Your task to perform on an android device: toggle translation in the chrome app Image 0: 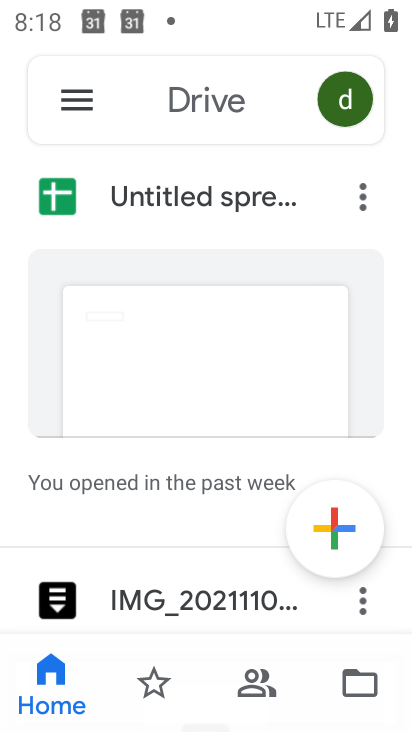
Step 0: press back button
Your task to perform on an android device: toggle translation in the chrome app Image 1: 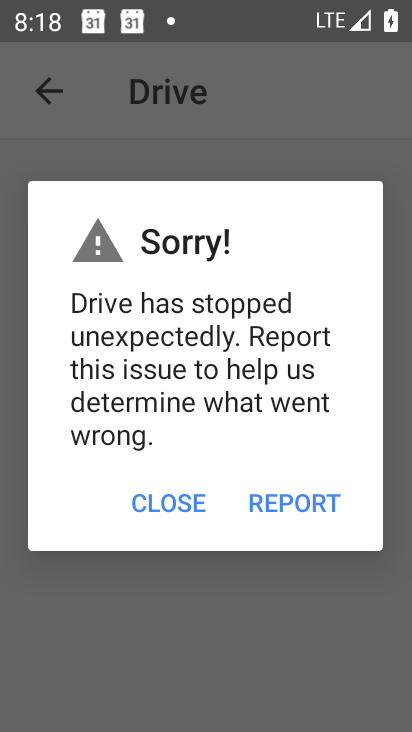
Step 1: press home button
Your task to perform on an android device: toggle translation in the chrome app Image 2: 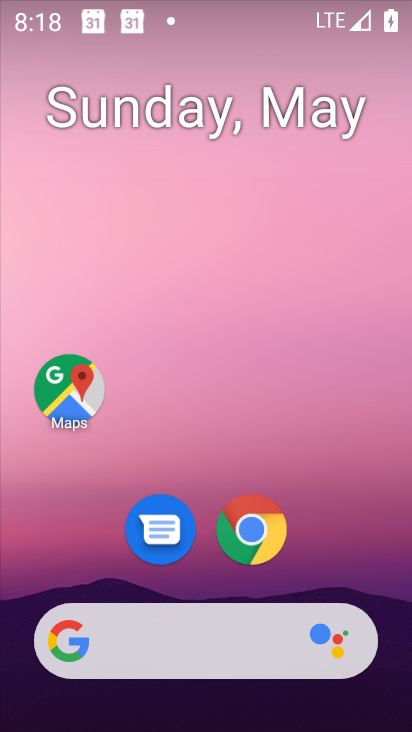
Step 2: click (269, 535)
Your task to perform on an android device: toggle translation in the chrome app Image 3: 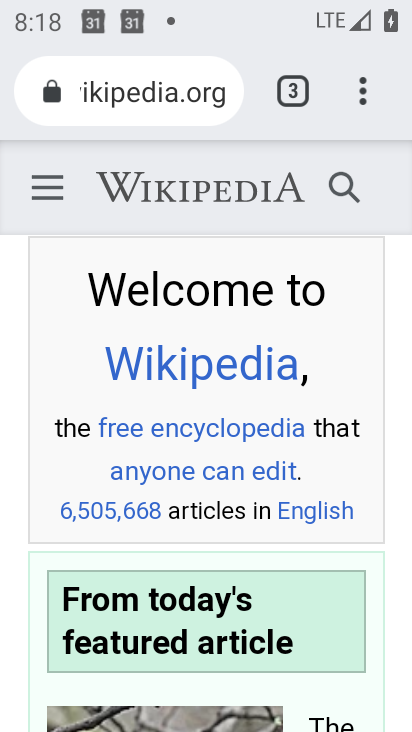
Step 3: drag from (364, 96) to (141, 534)
Your task to perform on an android device: toggle translation in the chrome app Image 4: 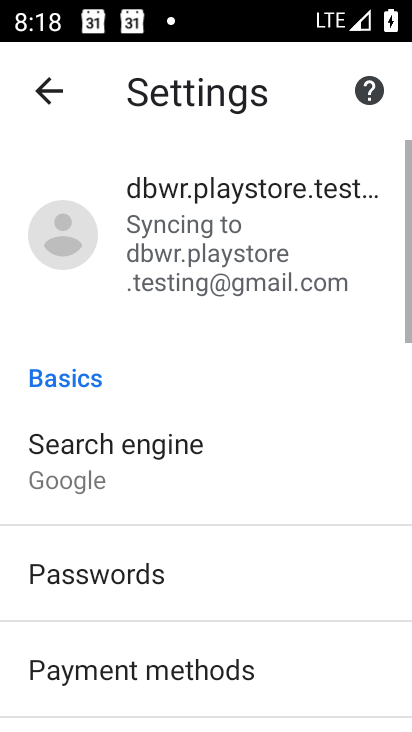
Step 4: drag from (176, 666) to (221, 141)
Your task to perform on an android device: toggle translation in the chrome app Image 5: 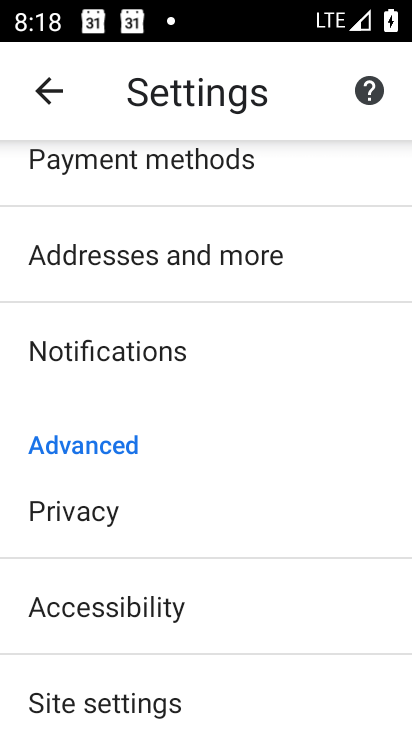
Step 5: drag from (140, 639) to (197, 164)
Your task to perform on an android device: toggle translation in the chrome app Image 6: 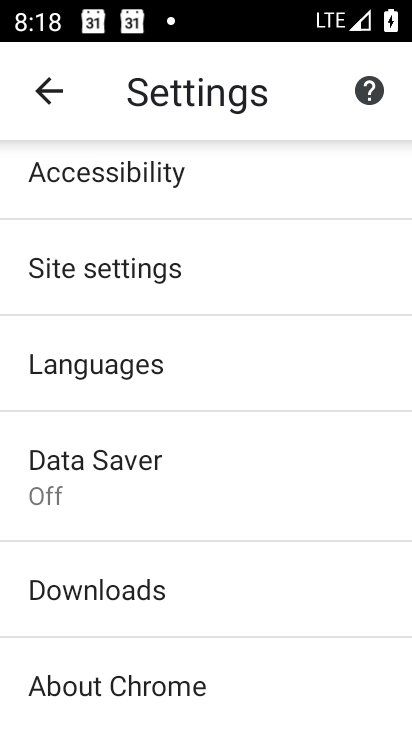
Step 6: click (85, 364)
Your task to perform on an android device: toggle translation in the chrome app Image 7: 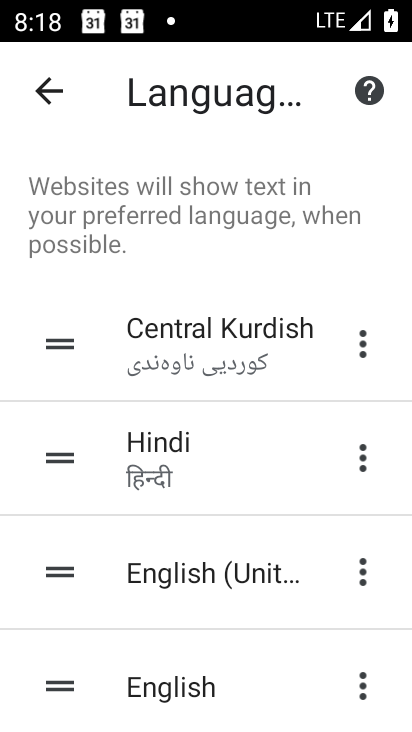
Step 7: click (58, 95)
Your task to perform on an android device: toggle translation in the chrome app Image 8: 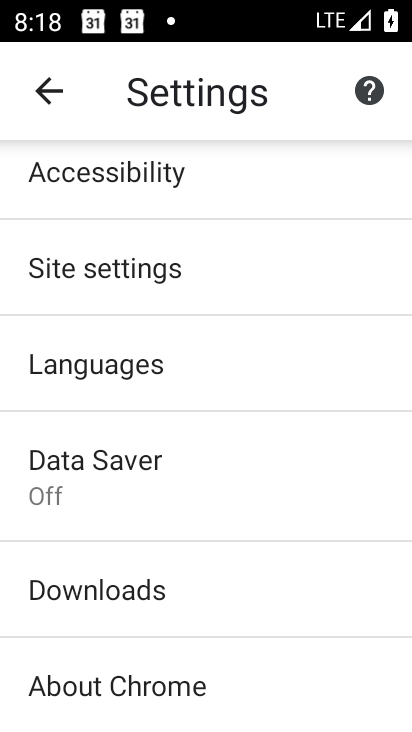
Step 8: click (101, 366)
Your task to perform on an android device: toggle translation in the chrome app Image 9: 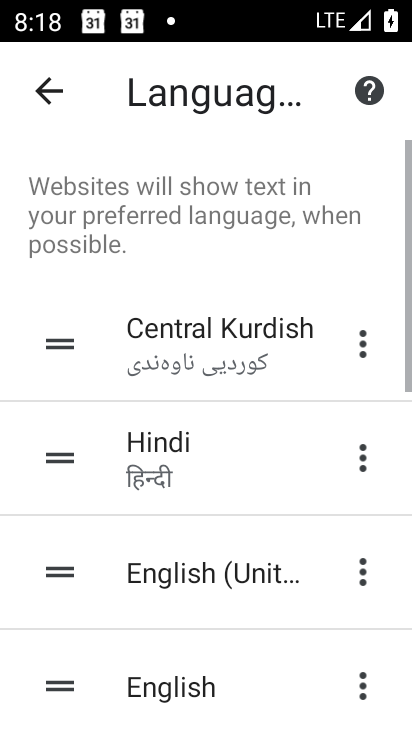
Step 9: drag from (203, 246) to (233, 115)
Your task to perform on an android device: toggle translation in the chrome app Image 10: 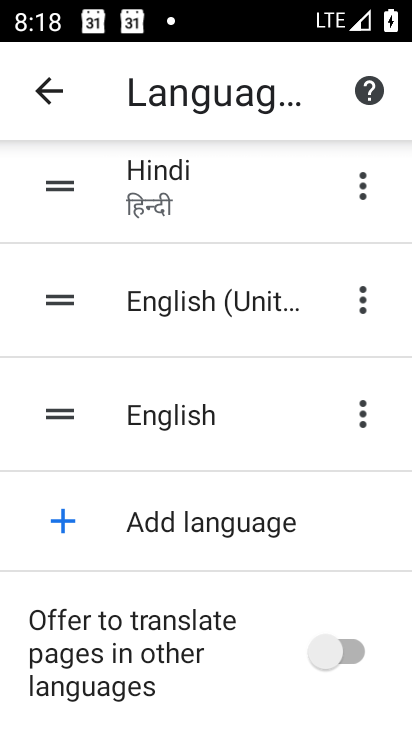
Step 10: click (332, 653)
Your task to perform on an android device: toggle translation in the chrome app Image 11: 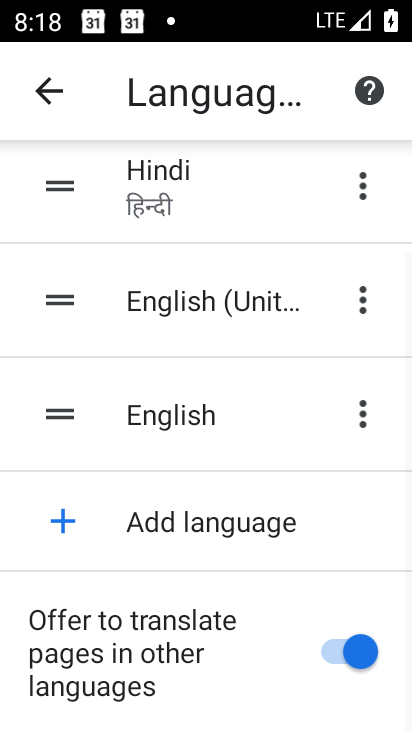
Step 11: task complete